Your task to perform on an android device: Go to notification settings Image 0: 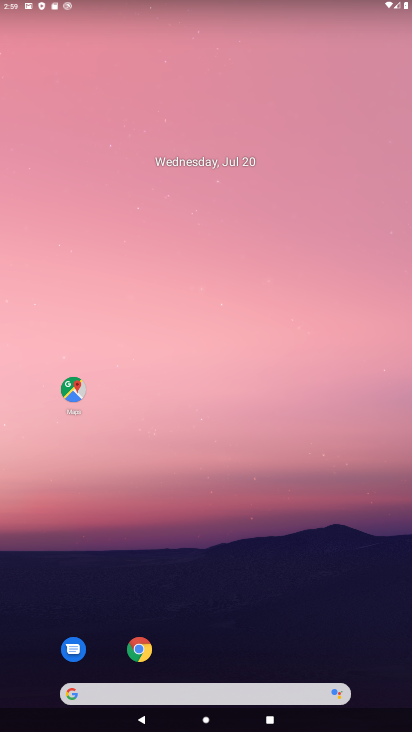
Step 0: drag from (223, 688) to (321, 65)
Your task to perform on an android device: Go to notification settings Image 1: 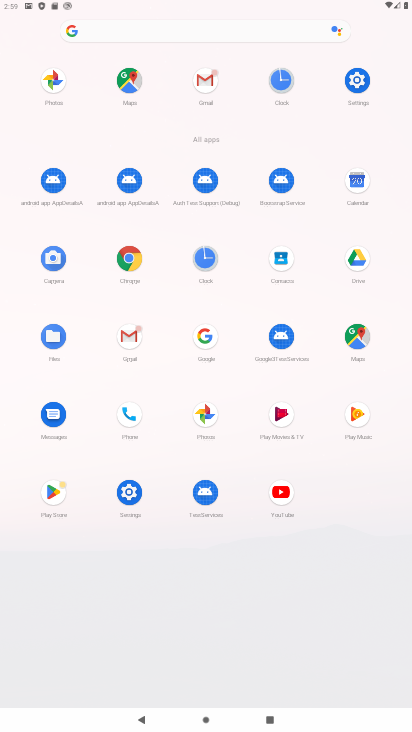
Step 1: click (357, 80)
Your task to perform on an android device: Go to notification settings Image 2: 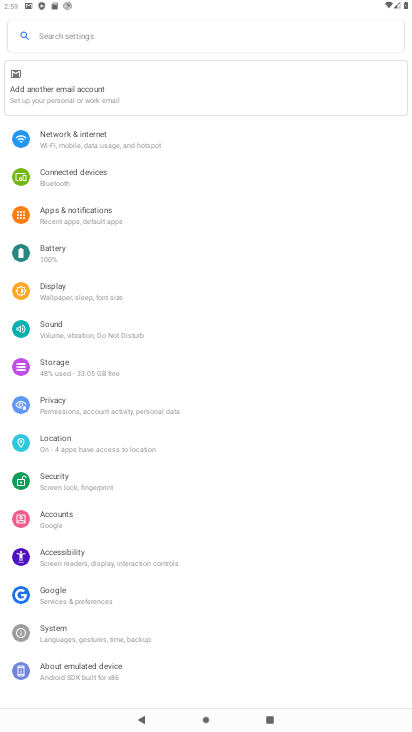
Step 2: click (90, 218)
Your task to perform on an android device: Go to notification settings Image 3: 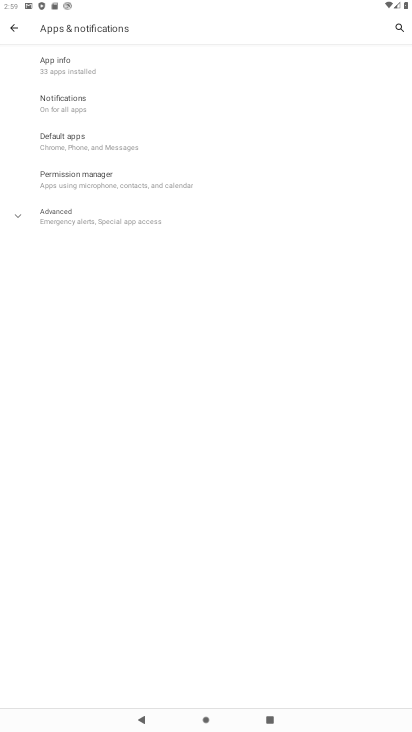
Step 3: click (69, 103)
Your task to perform on an android device: Go to notification settings Image 4: 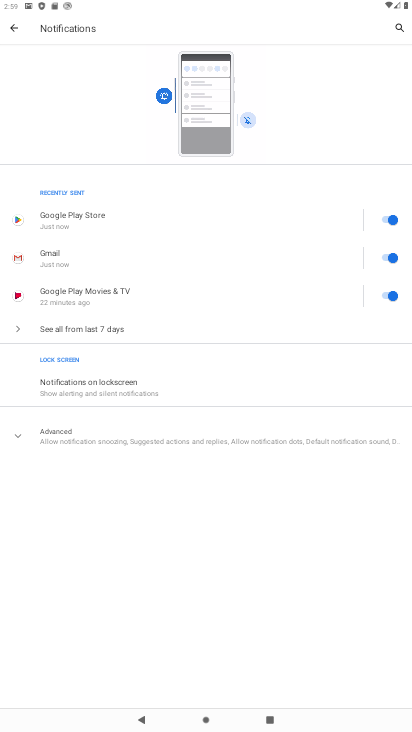
Step 4: task complete